Your task to perform on an android device: snooze an email in the gmail app Image 0: 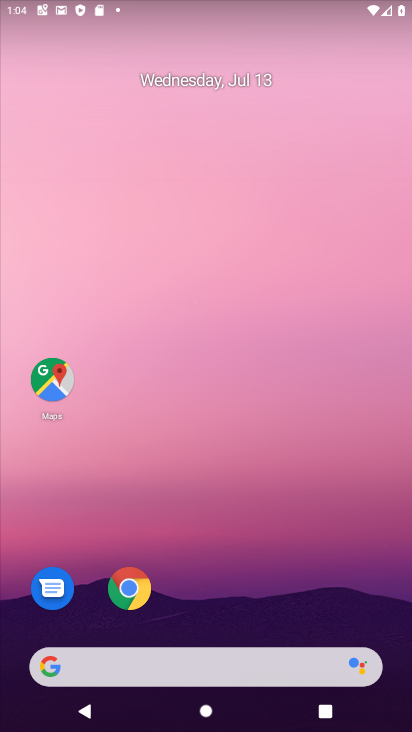
Step 0: drag from (260, 262) to (262, 45)
Your task to perform on an android device: snooze an email in the gmail app Image 1: 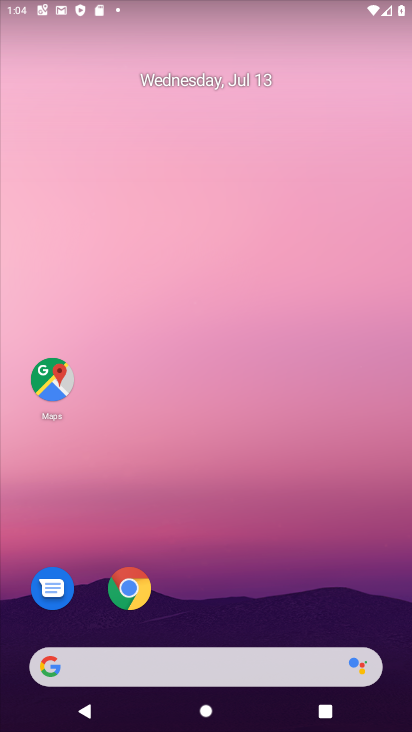
Step 1: drag from (166, 635) to (202, 152)
Your task to perform on an android device: snooze an email in the gmail app Image 2: 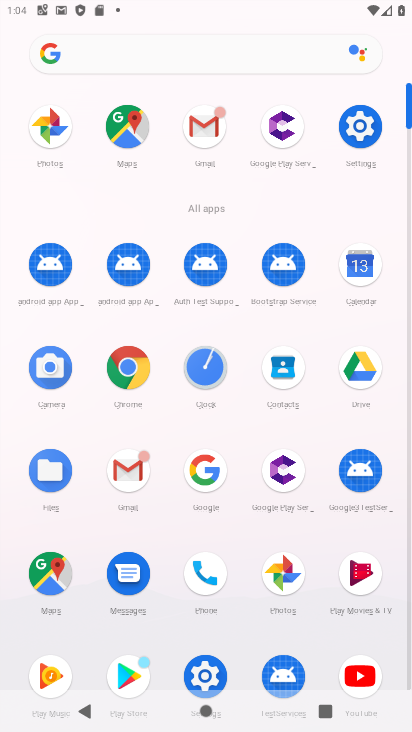
Step 2: click (194, 122)
Your task to perform on an android device: snooze an email in the gmail app Image 3: 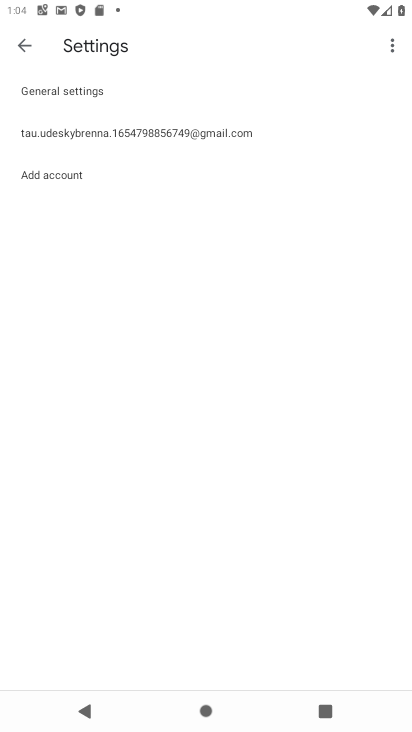
Step 3: click (25, 47)
Your task to perform on an android device: snooze an email in the gmail app Image 4: 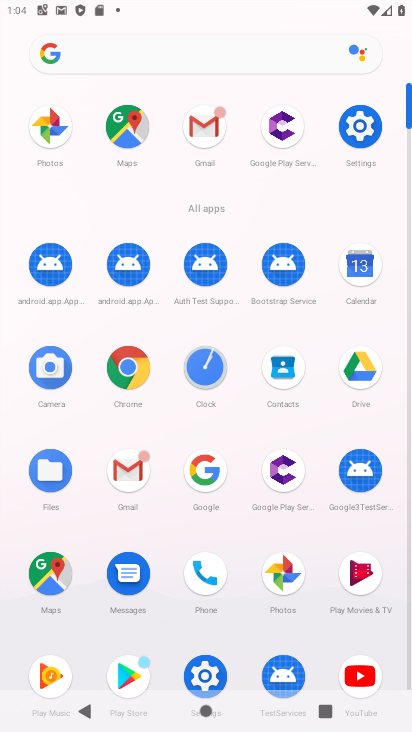
Step 4: click (201, 126)
Your task to perform on an android device: snooze an email in the gmail app Image 5: 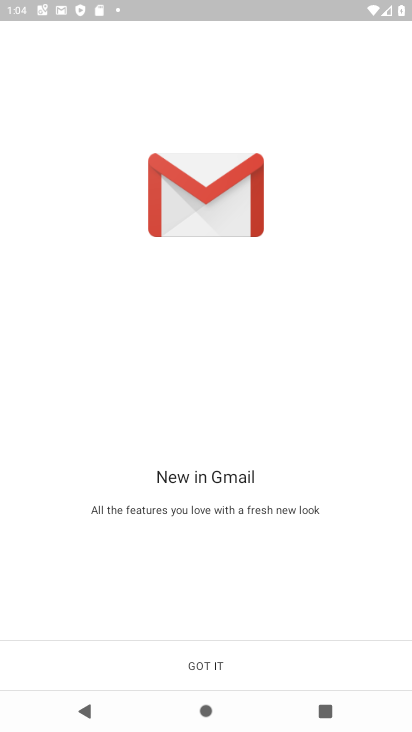
Step 5: click (187, 668)
Your task to perform on an android device: snooze an email in the gmail app Image 6: 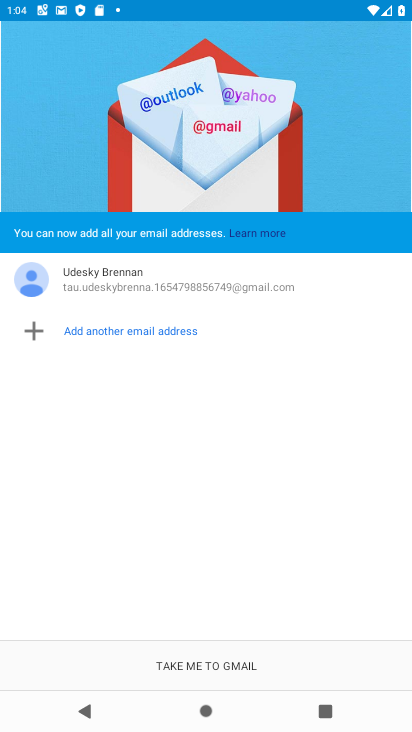
Step 6: click (175, 664)
Your task to perform on an android device: snooze an email in the gmail app Image 7: 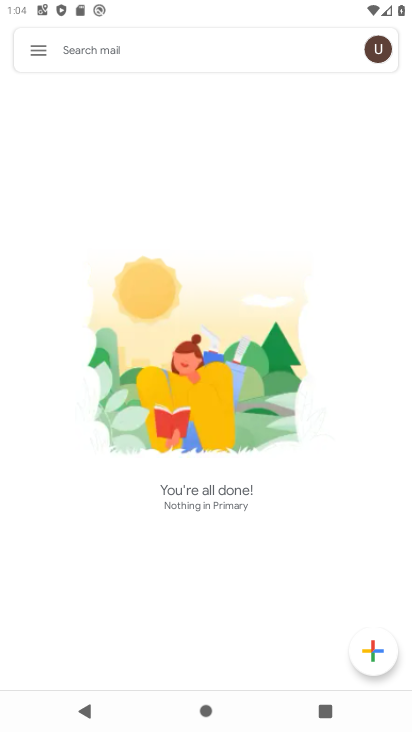
Step 7: click (39, 52)
Your task to perform on an android device: snooze an email in the gmail app Image 8: 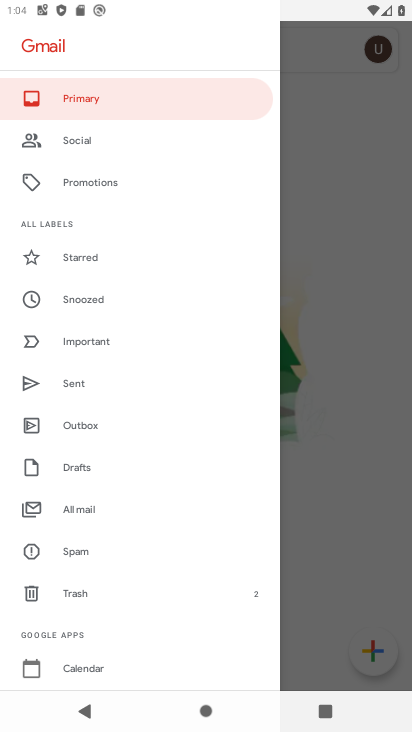
Step 8: click (75, 300)
Your task to perform on an android device: snooze an email in the gmail app Image 9: 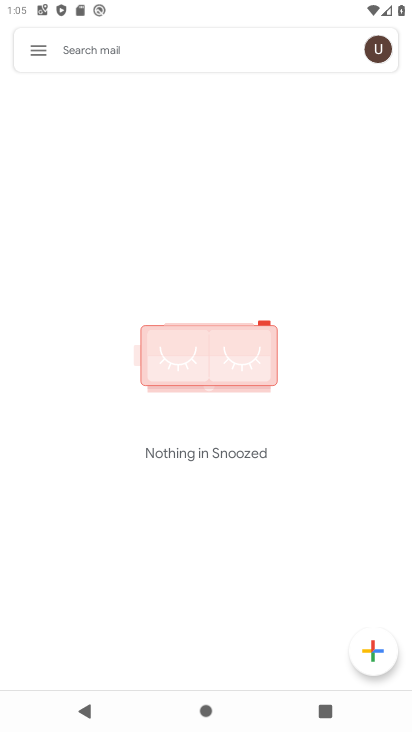
Step 9: task complete